Your task to perform on an android device: Open maps Image 0: 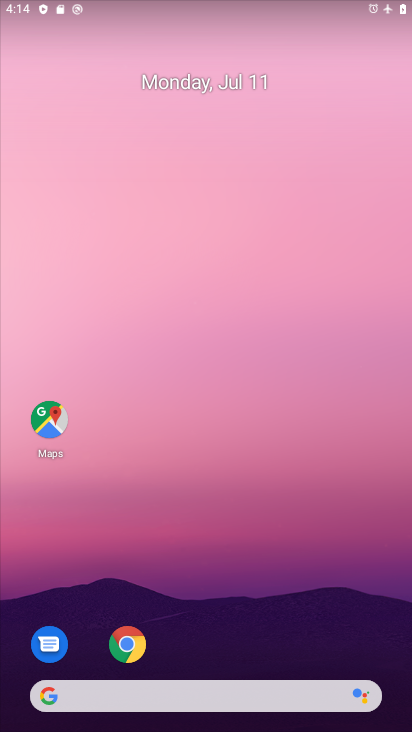
Step 0: drag from (186, 673) to (240, 81)
Your task to perform on an android device: Open maps Image 1: 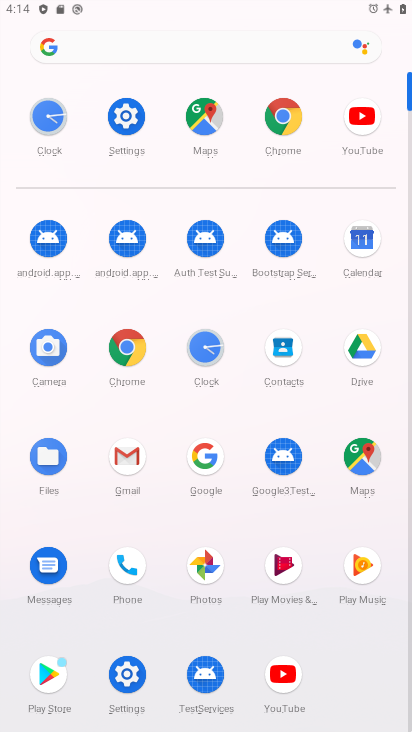
Step 1: click (359, 465)
Your task to perform on an android device: Open maps Image 2: 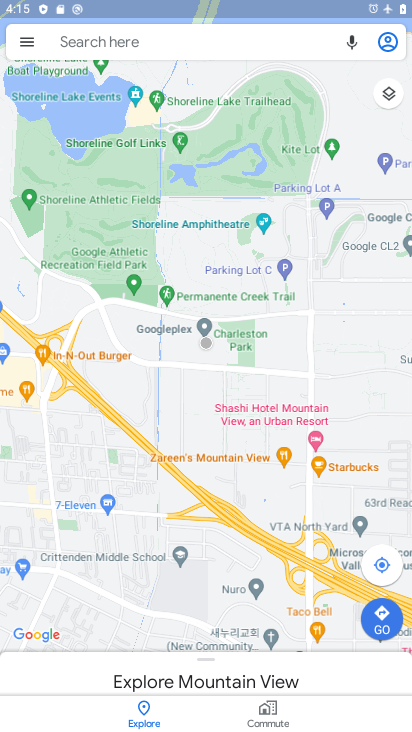
Step 2: task complete